Your task to perform on an android device: Open Youtube and go to "Your channel" Image 0: 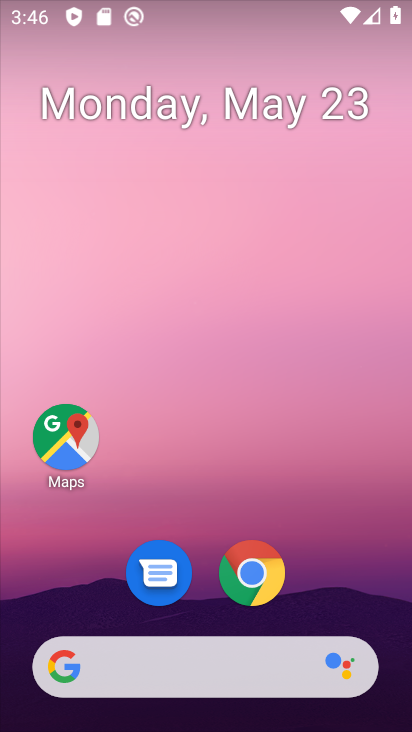
Step 0: drag from (223, 719) to (220, 131)
Your task to perform on an android device: Open Youtube and go to "Your channel" Image 1: 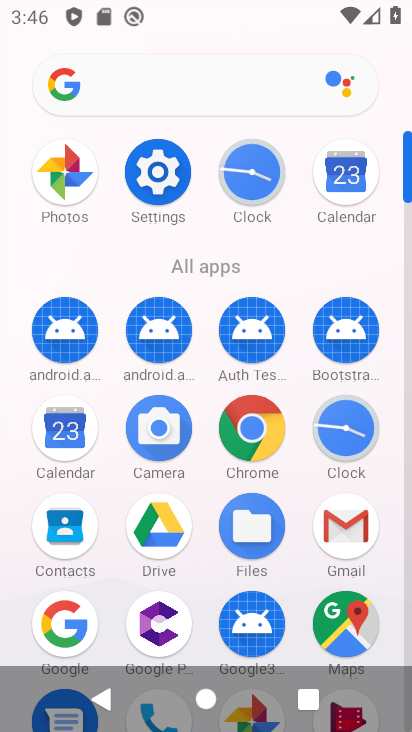
Step 1: drag from (303, 581) to (299, 244)
Your task to perform on an android device: Open Youtube and go to "Your channel" Image 2: 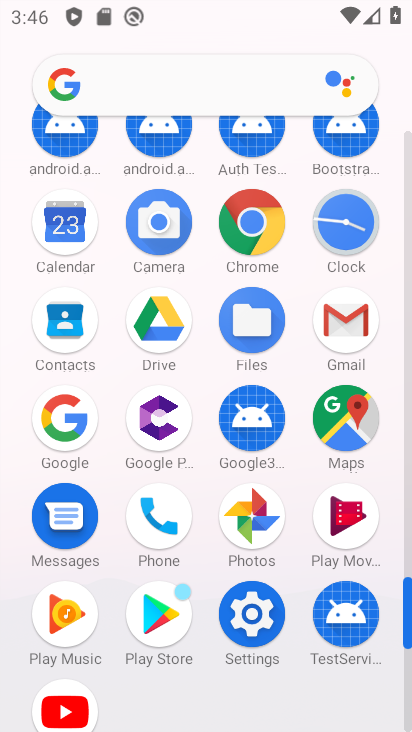
Step 2: click (61, 706)
Your task to perform on an android device: Open Youtube and go to "Your channel" Image 3: 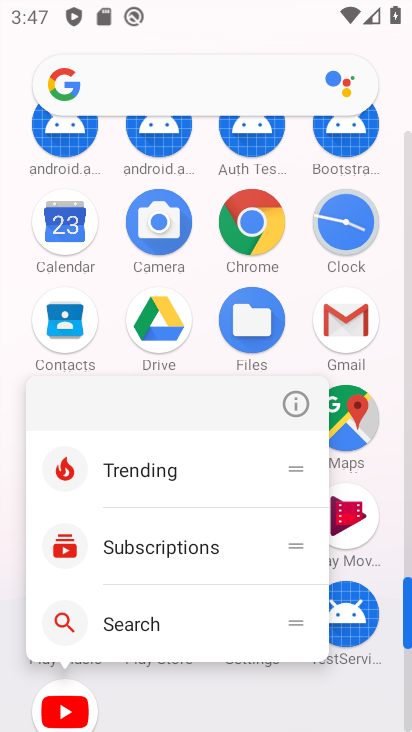
Step 3: click (61, 705)
Your task to perform on an android device: Open Youtube and go to "Your channel" Image 4: 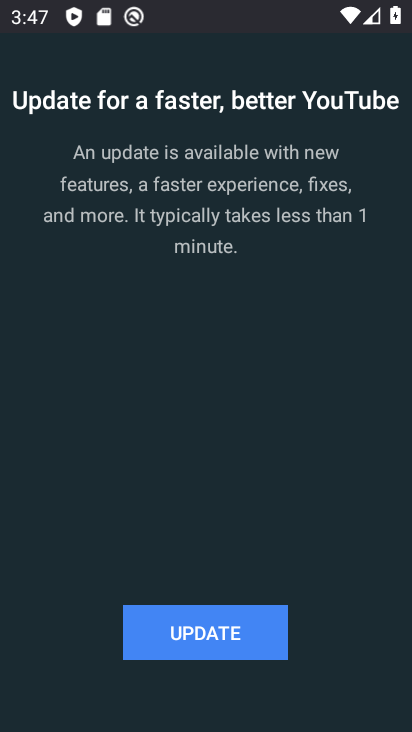
Step 4: click (247, 631)
Your task to perform on an android device: Open Youtube and go to "Your channel" Image 5: 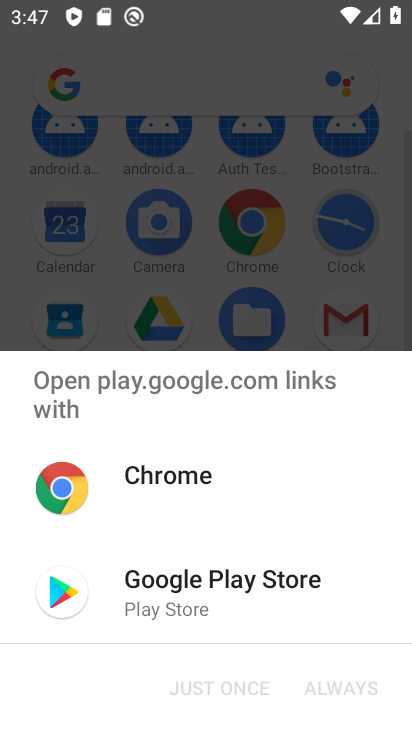
Step 5: click (149, 592)
Your task to perform on an android device: Open Youtube and go to "Your channel" Image 6: 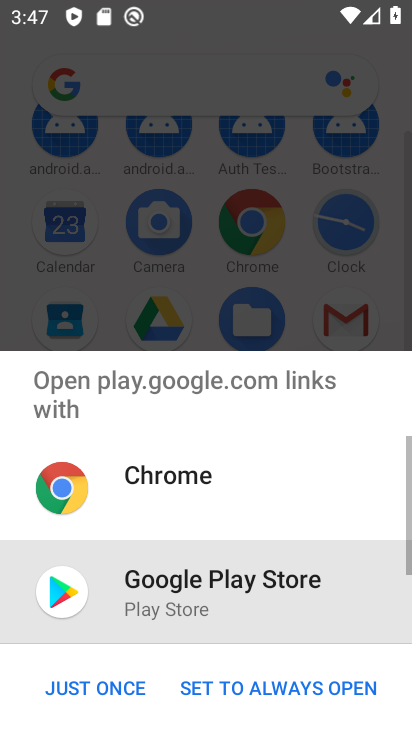
Step 6: click (79, 678)
Your task to perform on an android device: Open Youtube and go to "Your channel" Image 7: 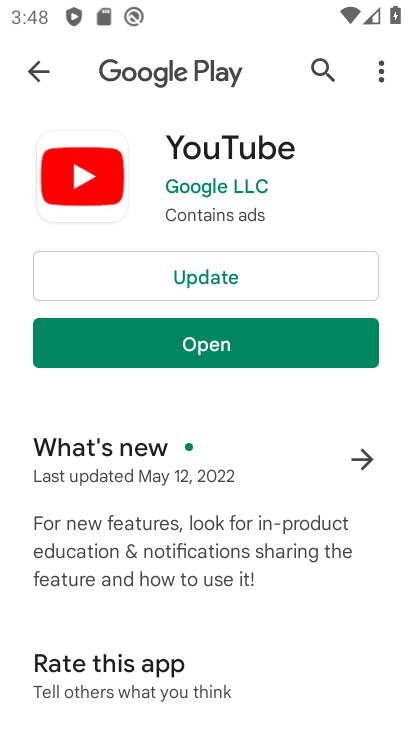
Step 7: click (220, 344)
Your task to perform on an android device: Open Youtube and go to "Your channel" Image 8: 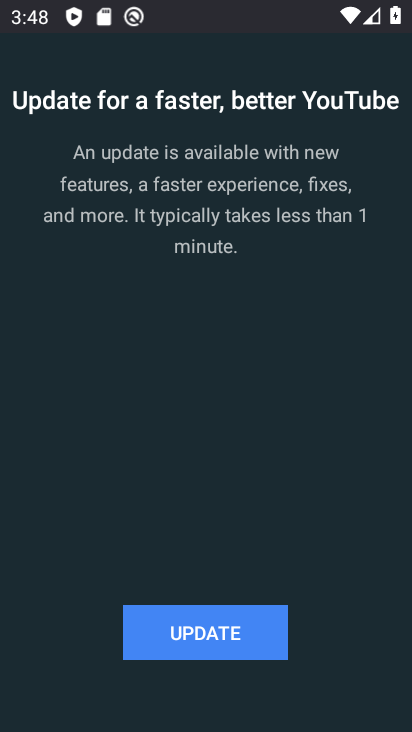
Step 8: task complete